Your task to perform on an android device: Go to Android settings Image 0: 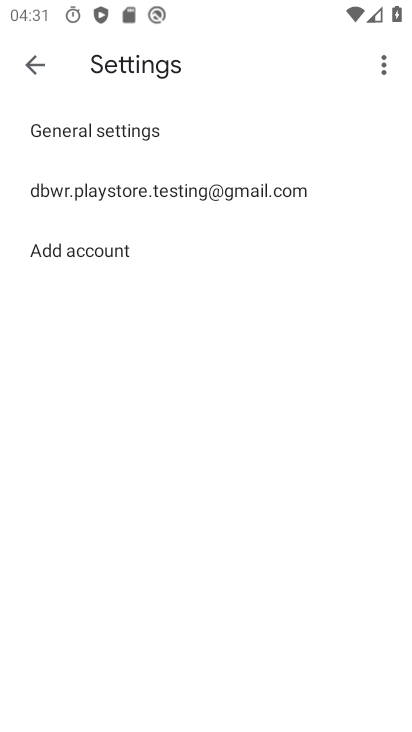
Step 0: press home button
Your task to perform on an android device: Go to Android settings Image 1: 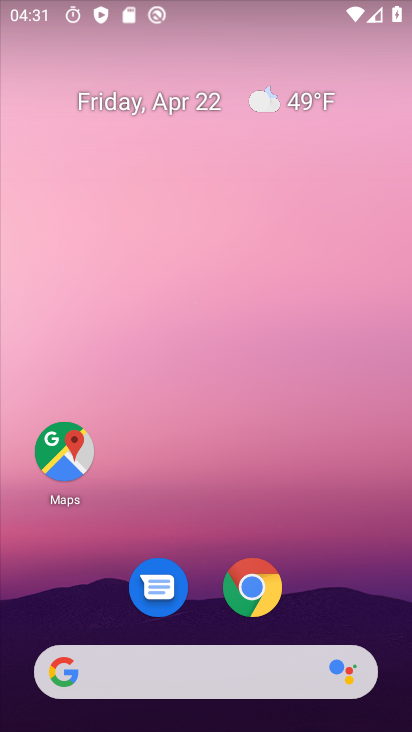
Step 1: drag from (355, 594) to (354, 30)
Your task to perform on an android device: Go to Android settings Image 2: 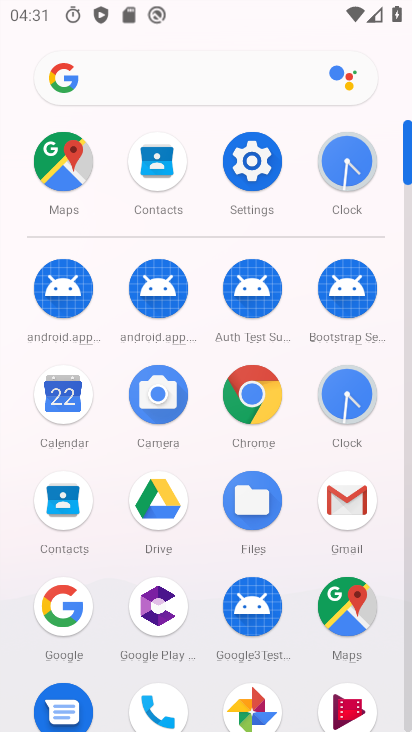
Step 2: click (249, 166)
Your task to perform on an android device: Go to Android settings Image 3: 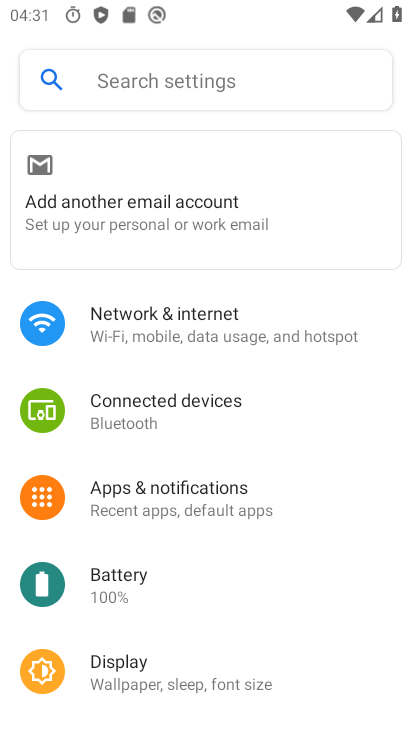
Step 3: task complete